Your task to perform on an android device: turn off notifications in google photos Image 0: 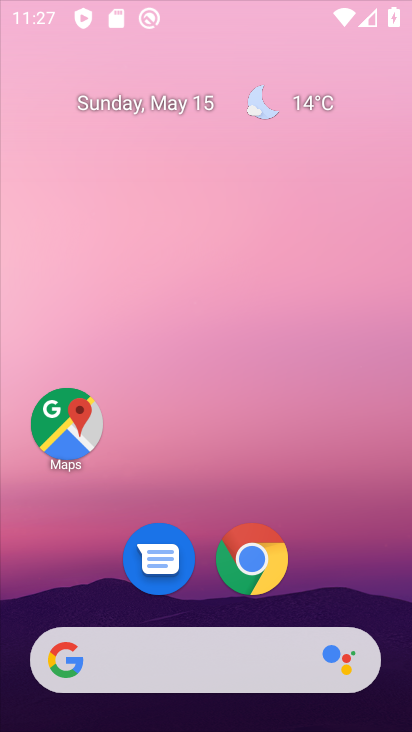
Step 0: drag from (362, 329) to (362, 187)
Your task to perform on an android device: turn off notifications in google photos Image 1: 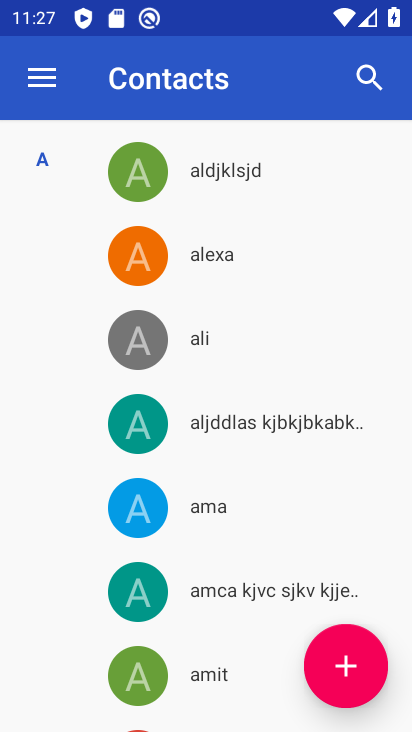
Step 1: press home button
Your task to perform on an android device: turn off notifications in google photos Image 2: 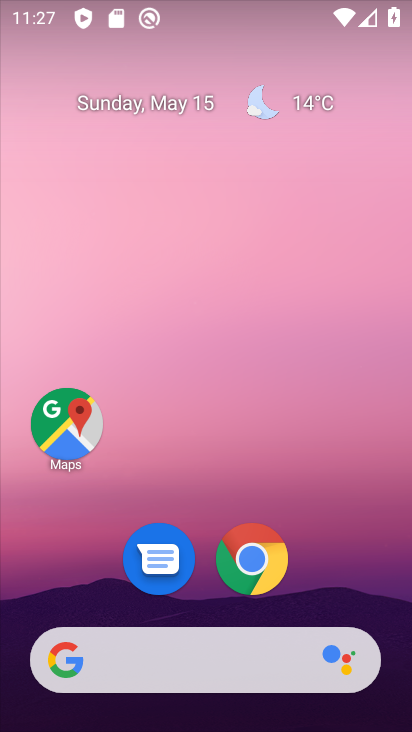
Step 2: drag from (375, 576) to (346, 156)
Your task to perform on an android device: turn off notifications in google photos Image 3: 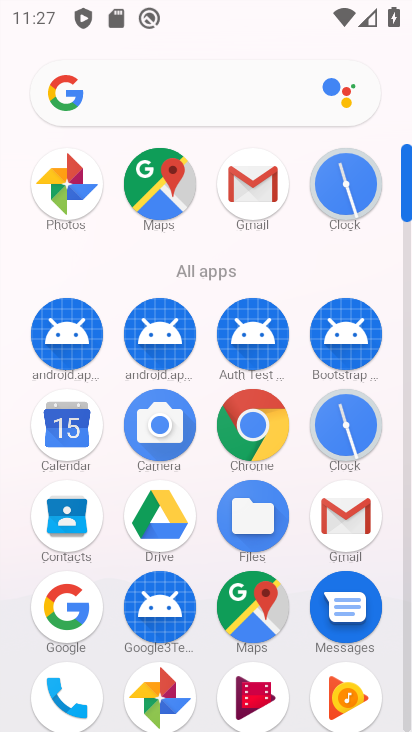
Step 3: click (178, 682)
Your task to perform on an android device: turn off notifications in google photos Image 4: 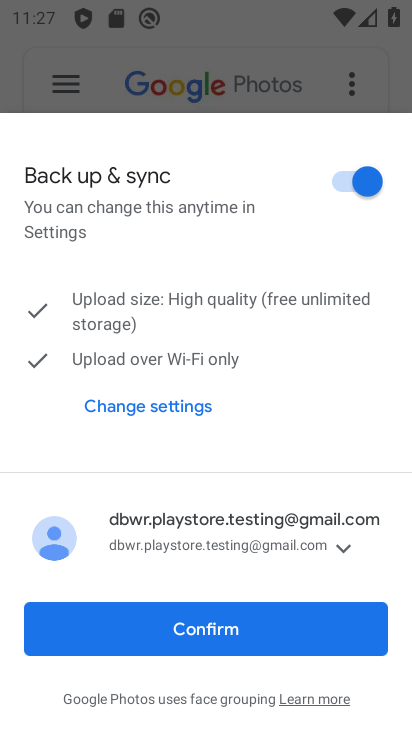
Step 4: click (267, 633)
Your task to perform on an android device: turn off notifications in google photos Image 5: 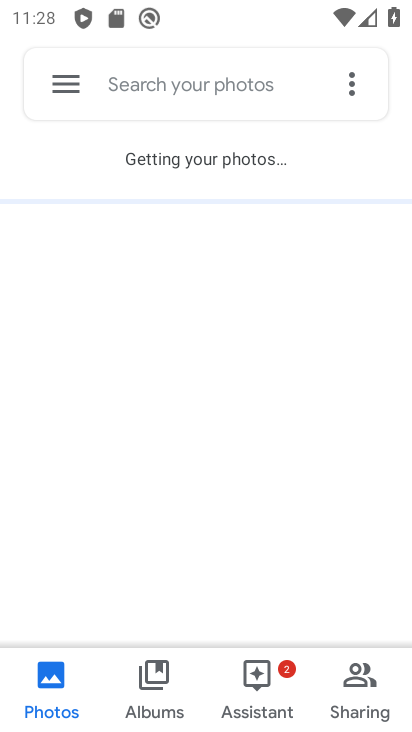
Step 5: click (87, 68)
Your task to perform on an android device: turn off notifications in google photos Image 6: 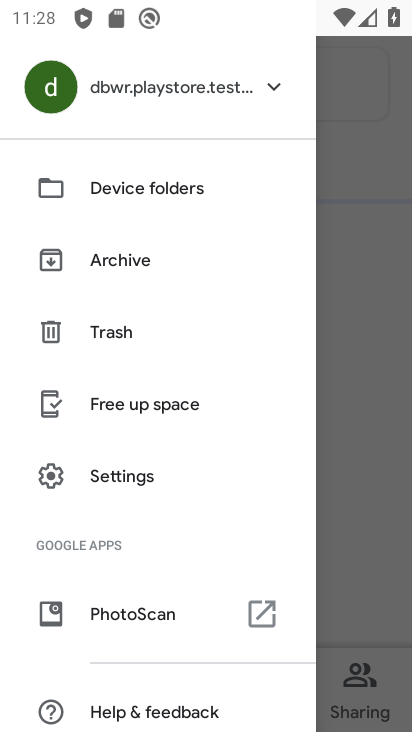
Step 6: click (174, 467)
Your task to perform on an android device: turn off notifications in google photos Image 7: 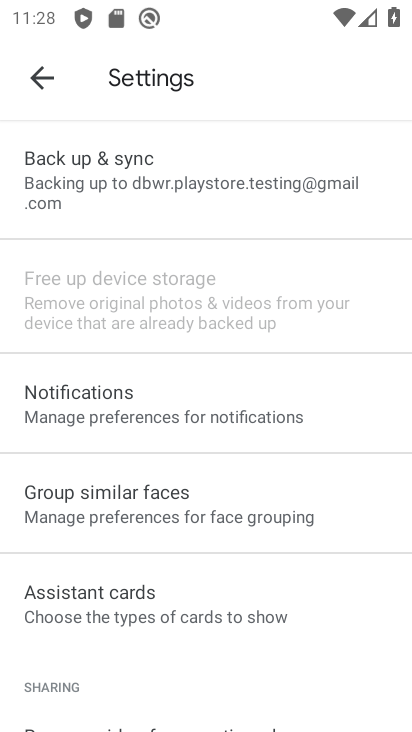
Step 7: click (111, 401)
Your task to perform on an android device: turn off notifications in google photos Image 8: 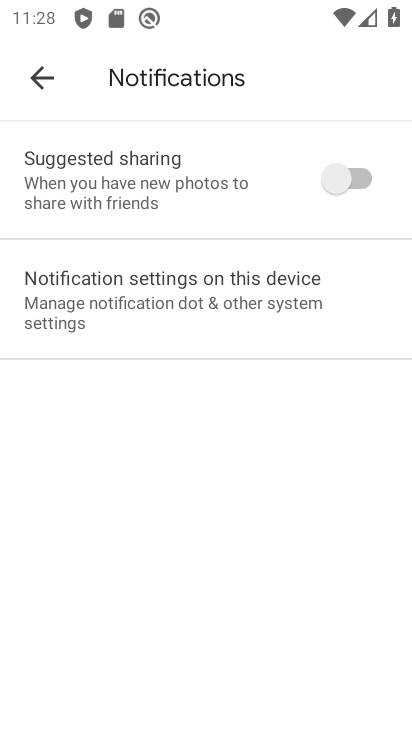
Step 8: click (122, 319)
Your task to perform on an android device: turn off notifications in google photos Image 9: 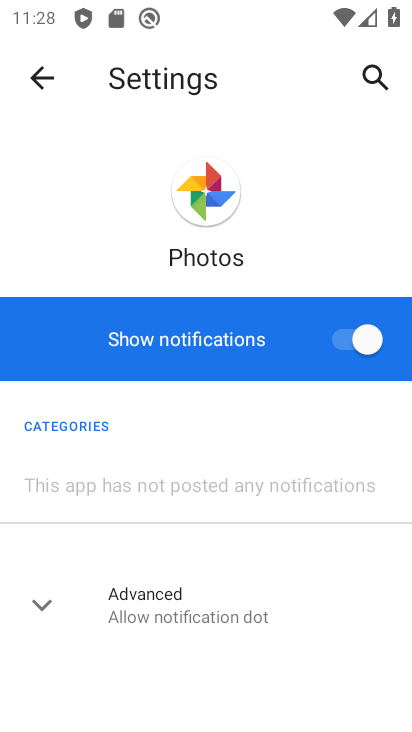
Step 9: click (340, 327)
Your task to perform on an android device: turn off notifications in google photos Image 10: 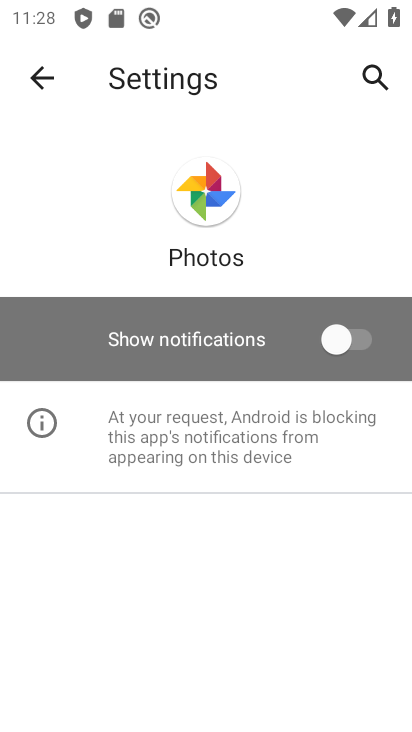
Step 10: task complete